Your task to perform on an android device: Open maps Image 0: 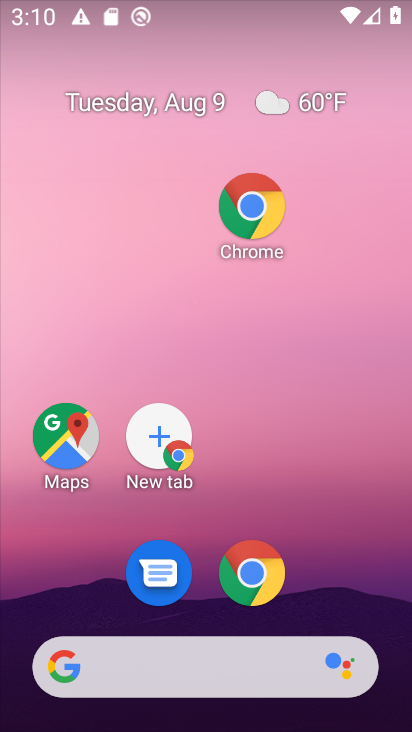
Step 0: click (66, 450)
Your task to perform on an android device: Open maps Image 1: 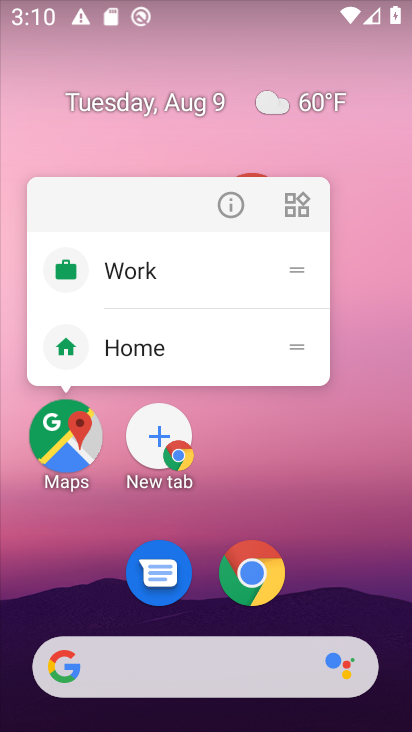
Step 1: click (68, 450)
Your task to perform on an android device: Open maps Image 2: 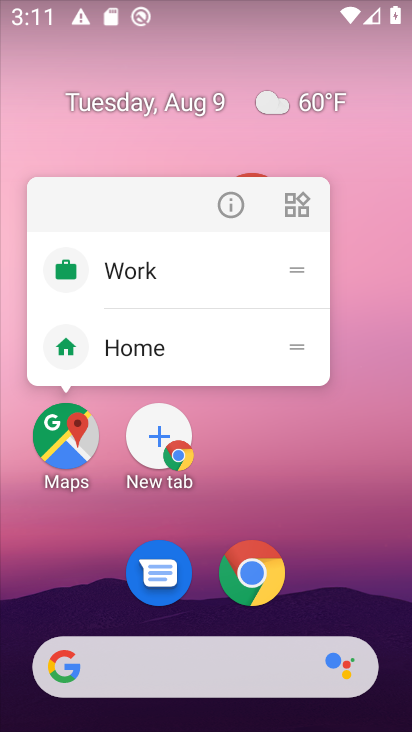
Step 2: drag from (197, 683) to (209, 174)
Your task to perform on an android device: Open maps Image 3: 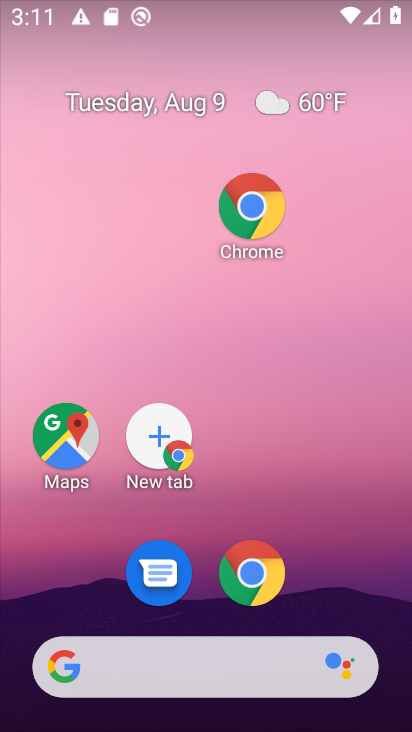
Step 3: drag from (199, 495) to (180, 350)
Your task to perform on an android device: Open maps Image 4: 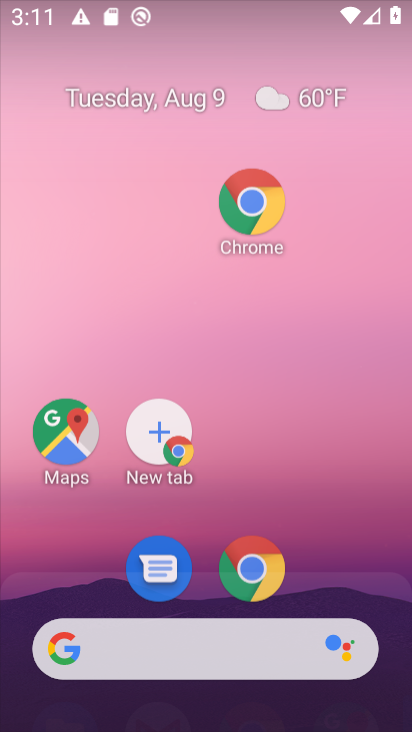
Step 4: click (226, 332)
Your task to perform on an android device: Open maps Image 5: 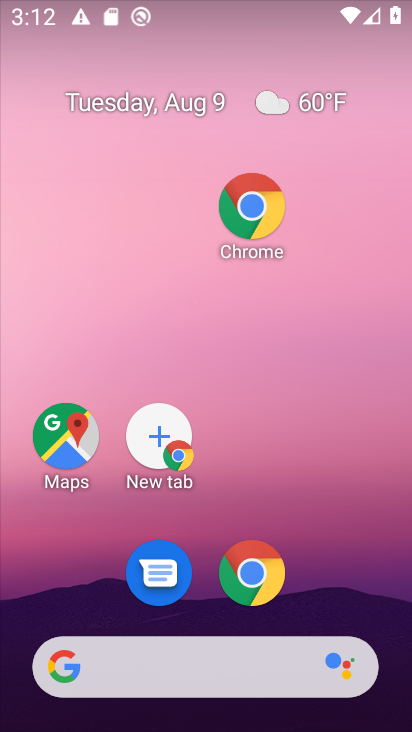
Step 5: drag from (165, 659) to (138, 372)
Your task to perform on an android device: Open maps Image 6: 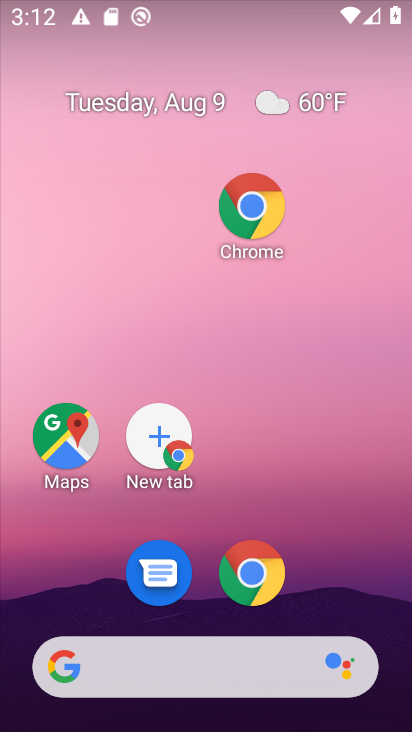
Step 6: click (69, 452)
Your task to perform on an android device: Open maps Image 7: 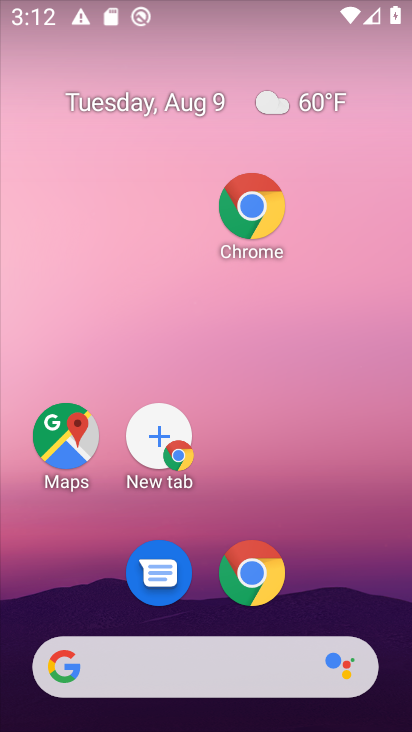
Step 7: click (67, 452)
Your task to perform on an android device: Open maps Image 8: 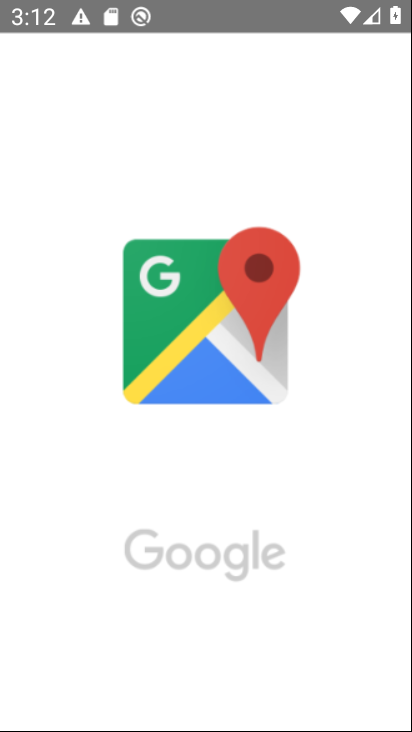
Step 8: click (69, 454)
Your task to perform on an android device: Open maps Image 9: 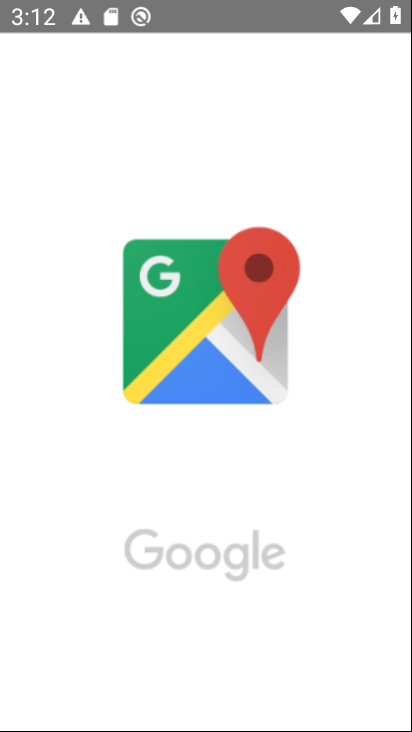
Step 9: task complete